Your task to perform on an android device: manage bookmarks in the chrome app Image 0: 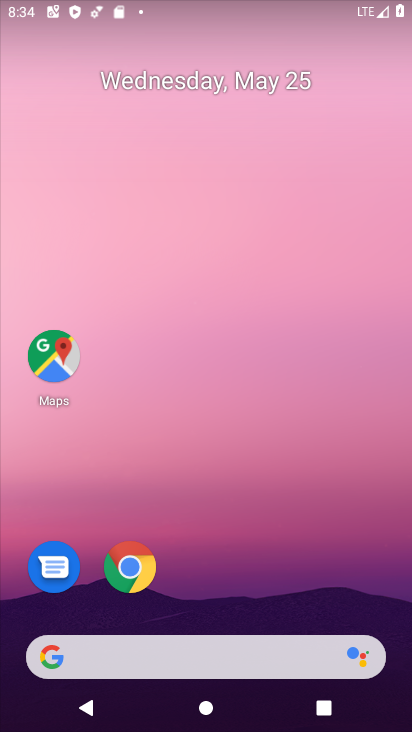
Step 0: click (141, 565)
Your task to perform on an android device: manage bookmarks in the chrome app Image 1: 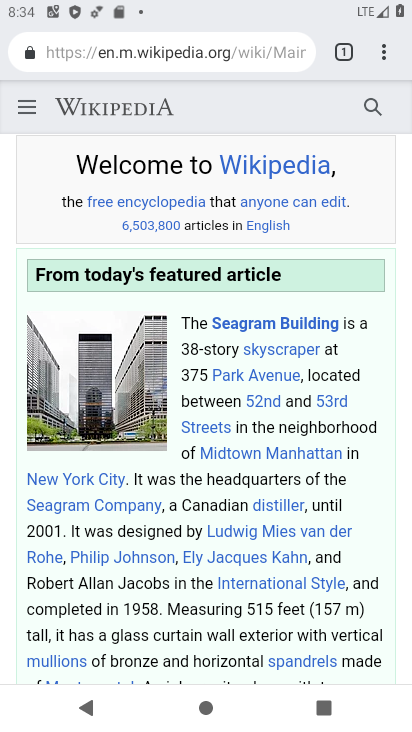
Step 1: click (381, 52)
Your task to perform on an android device: manage bookmarks in the chrome app Image 2: 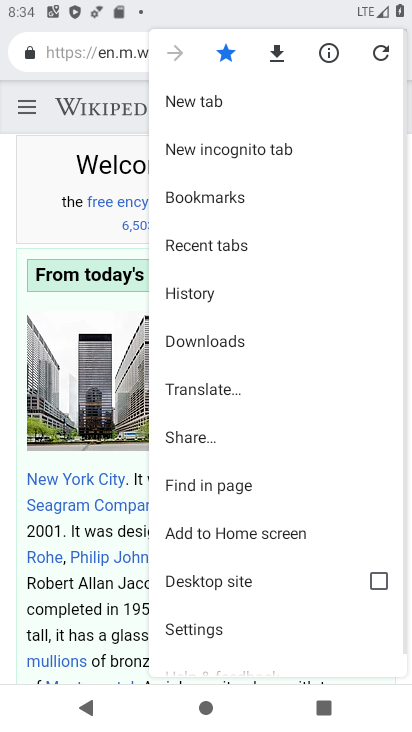
Step 2: click (238, 200)
Your task to perform on an android device: manage bookmarks in the chrome app Image 3: 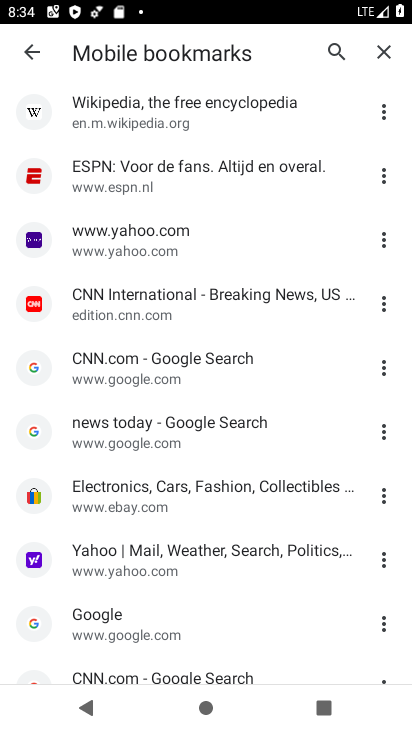
Step 3: click (382, 308)
Your task to perform on an android device: manage bookmarks in the chrome app Image 4: 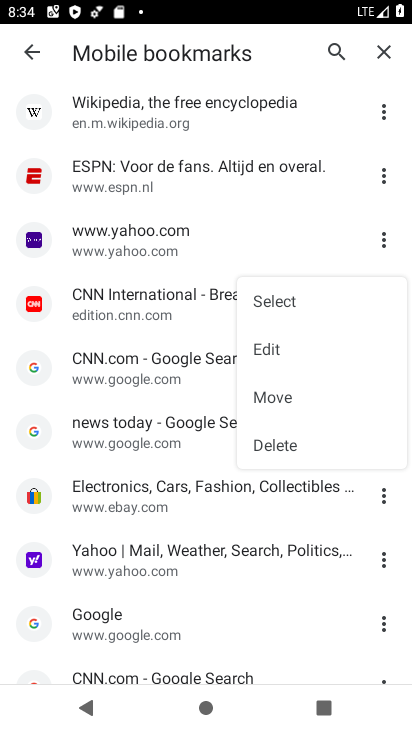
Step 4: click (312, 350)
Your task to perform on an android device: manage bookmarks in the chrome app Image 5: 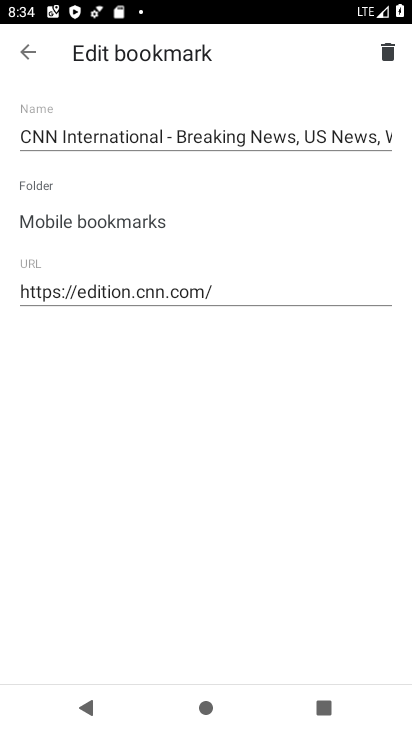
Step 5: click (27, 43)
Your task to perform on an android device: manage bookmarks in the chrome app Image 6: 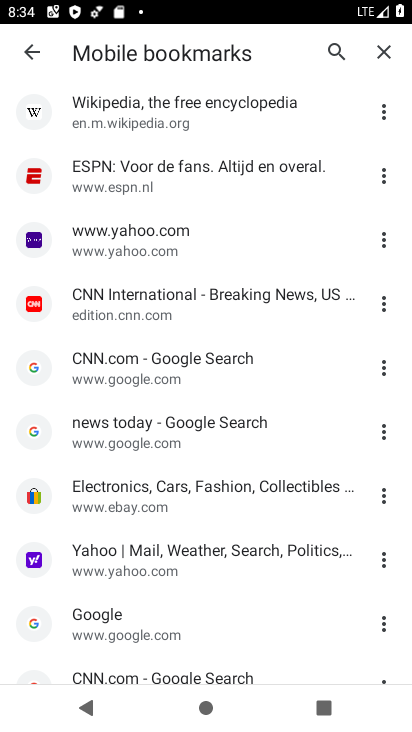
Step 6: task complete